Your task to perform on an android device: What's on my calendar today? Image 0: 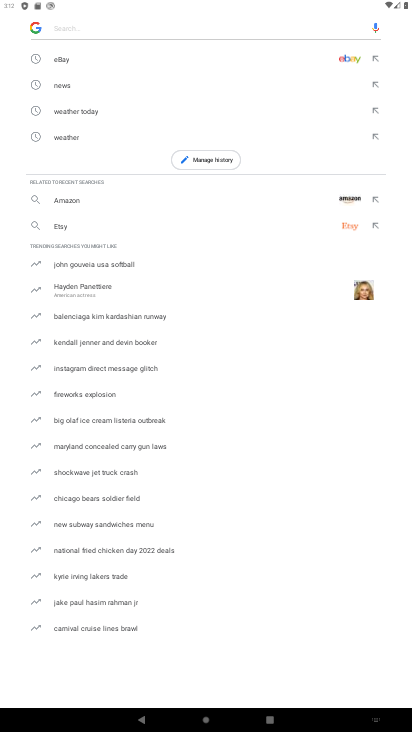
Step 0: press home button
Your task to perform on an android device: What's on my calendar today? Image 1: 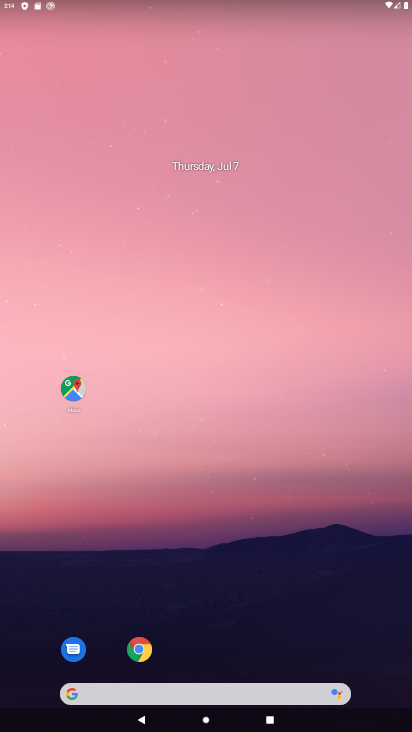
Step 1: drag from (381, 678) to (155, 50)
Your task to perform on an android device: What's on my calendar today? Image 2: 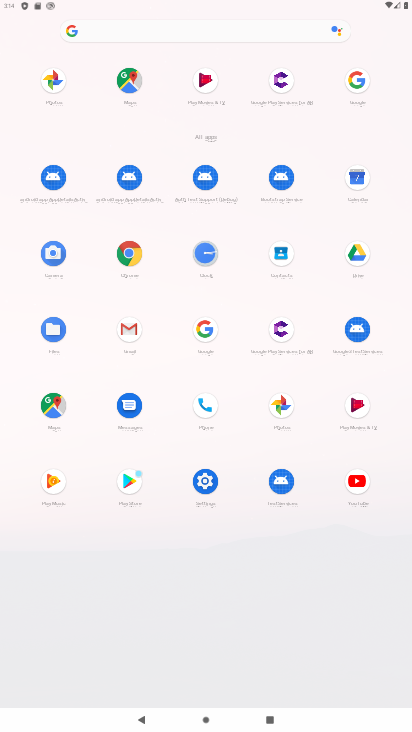
Step 2: click (355, 179)
Your task to perform on an android device: What's on my calendar today? Image 3: 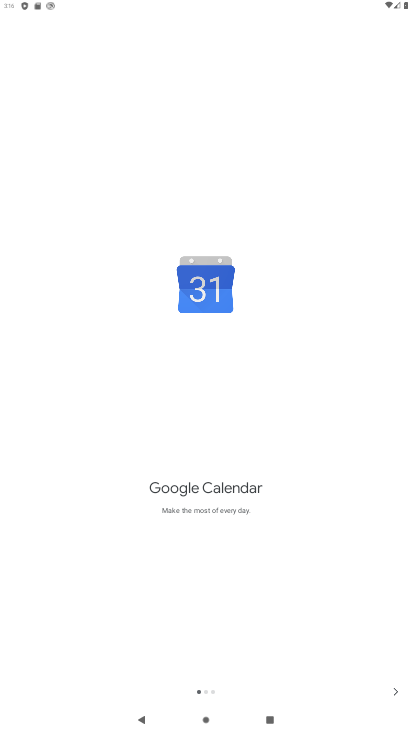
Step 3: click (398, 693)
Your task to perform on an android device: What's on my calendar today? Image 4: 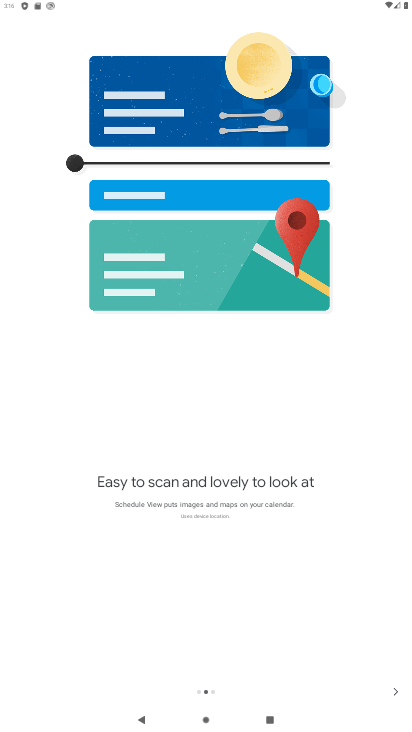
Step 4: click (403, 685)
Your task to perform on an android device: What's on my calendar today? Image 5: 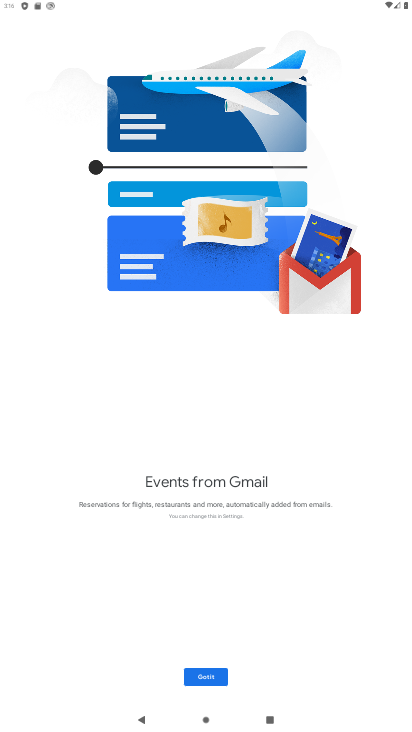
Step 5: click (201, 672)
Your task to perform on an android device: What's on my calendar today? Image 6: 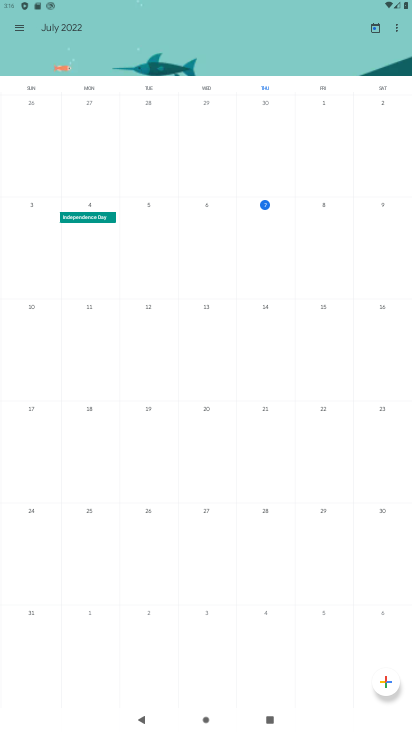
Step 6: task complete